Your task to perform on an android device: What's the latest video from Game Informer? Image 0: 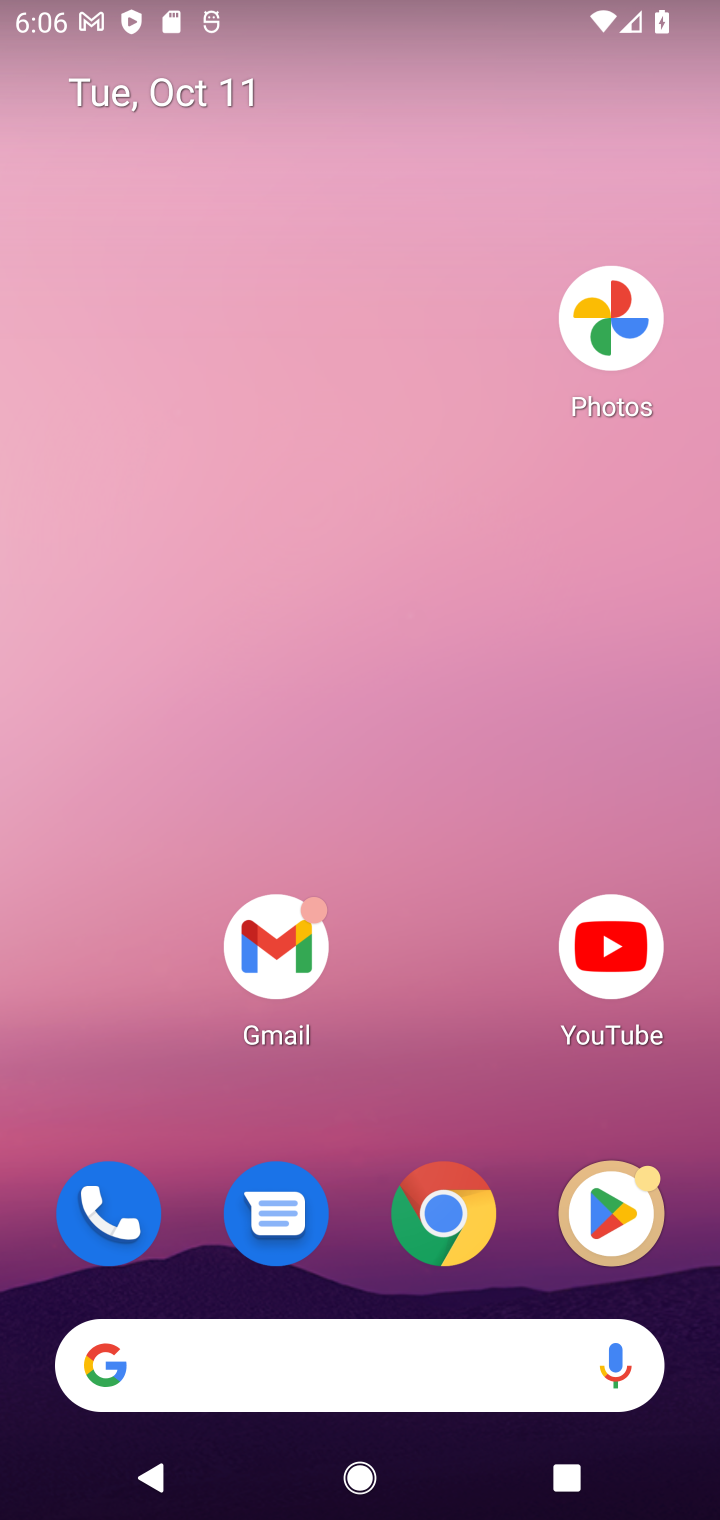
Step 0: drag from (377, 1297) to (507, 53)
Your task to perform on an android device: What's the latest video from Game Informer? Image 1: 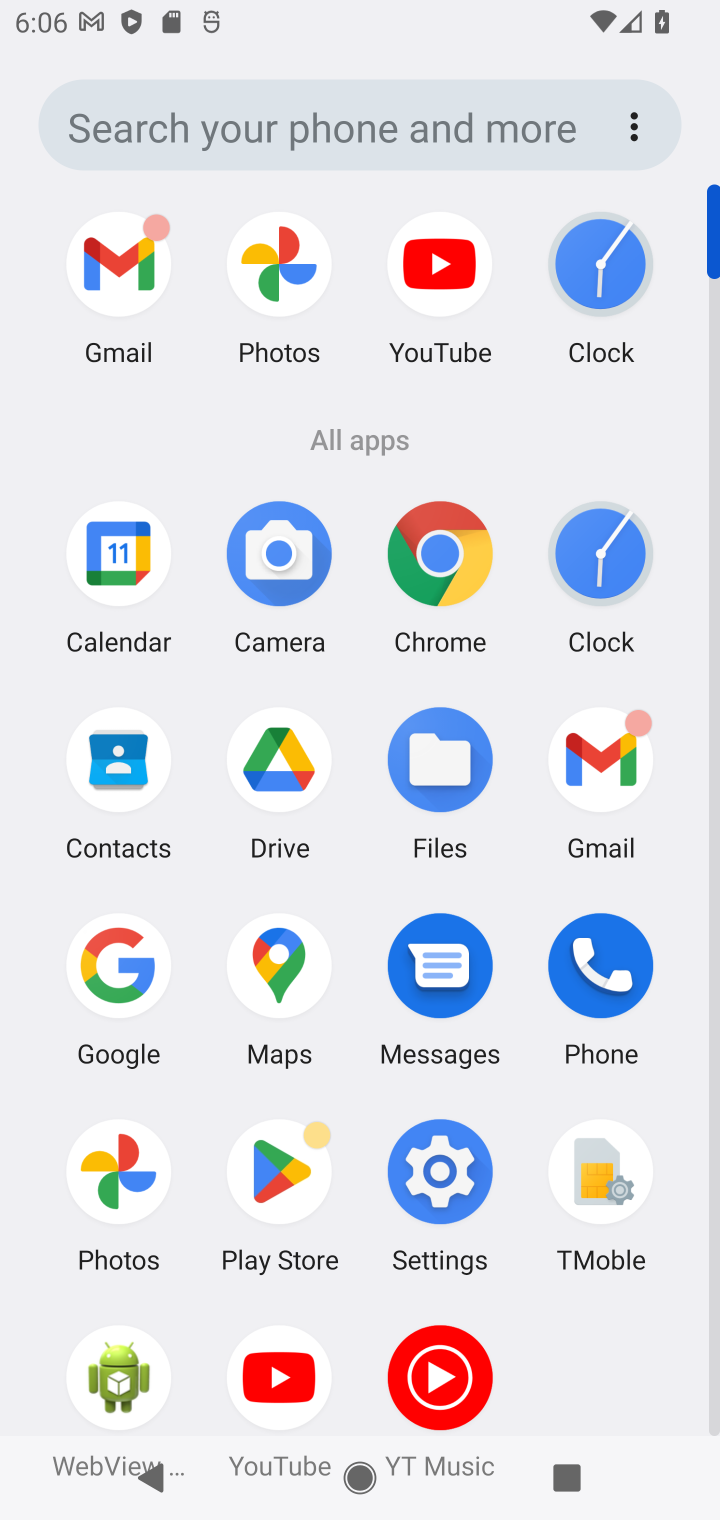
Step 1: click (445, 588)
Your task to perform on an android device: What's the latest video from Game Informer? Image 2: 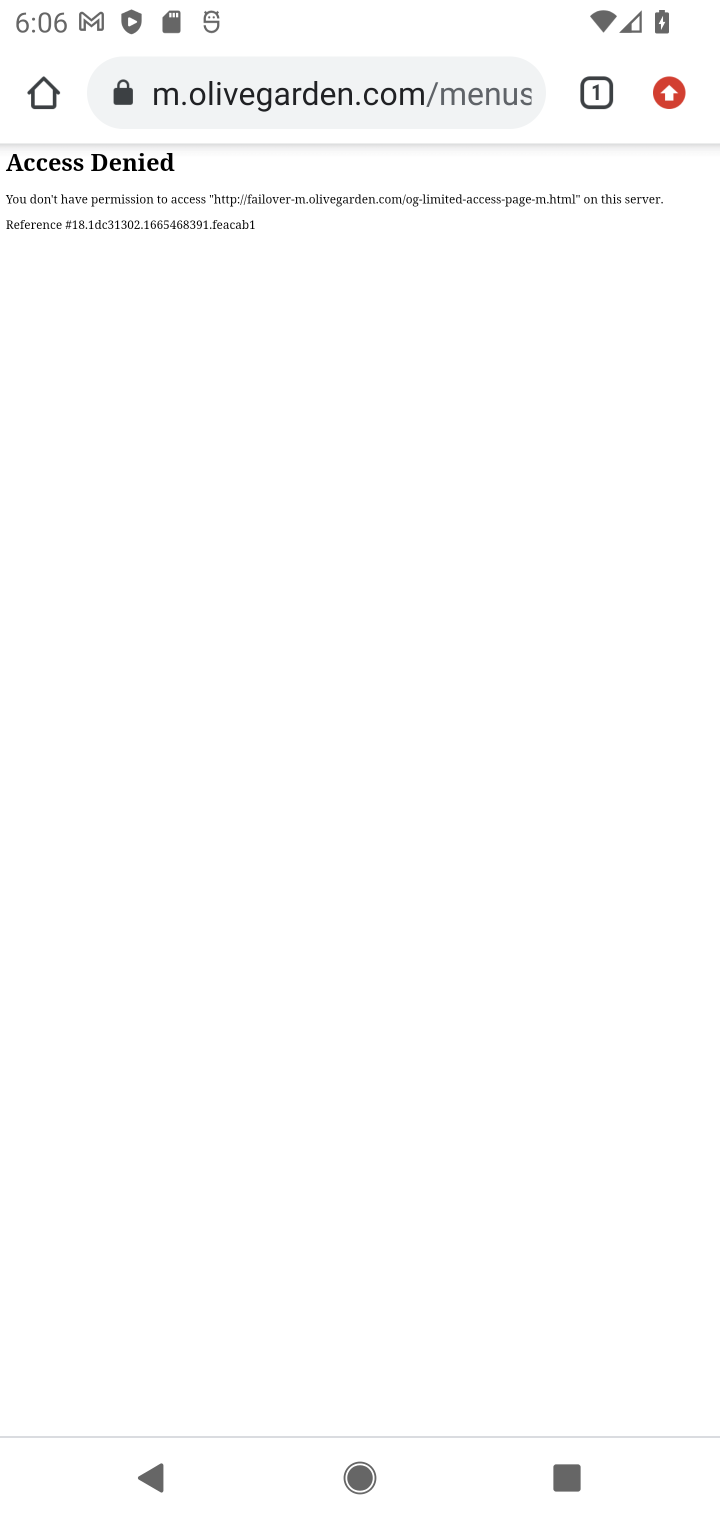
Step 2: click (297, 105)
Your task to perform on an android device: What's the latest video from Game Informer? Image 3: 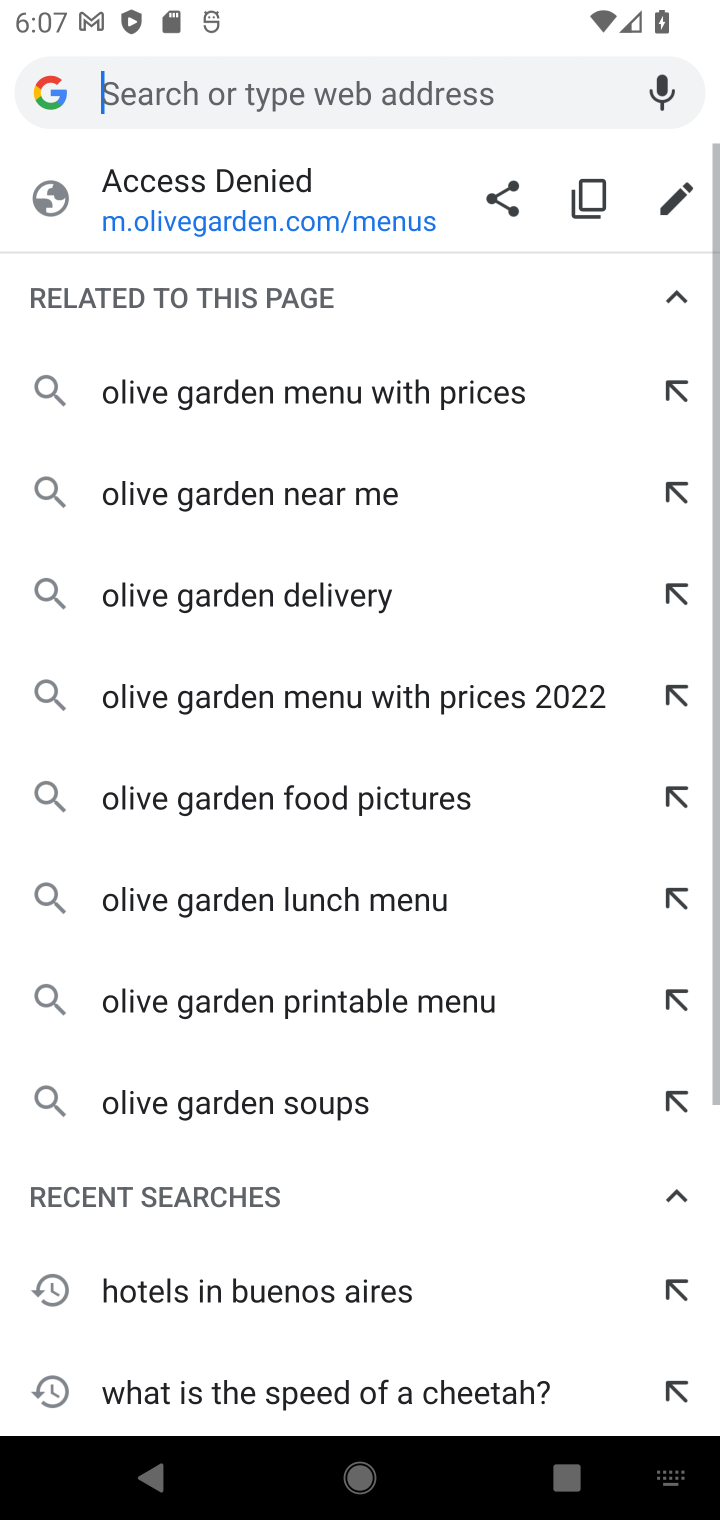
Step 3: type "What's the latest video from Game Informer?"
Your task to perform on an android device: What's the latest video from Game Informer? Image 4: 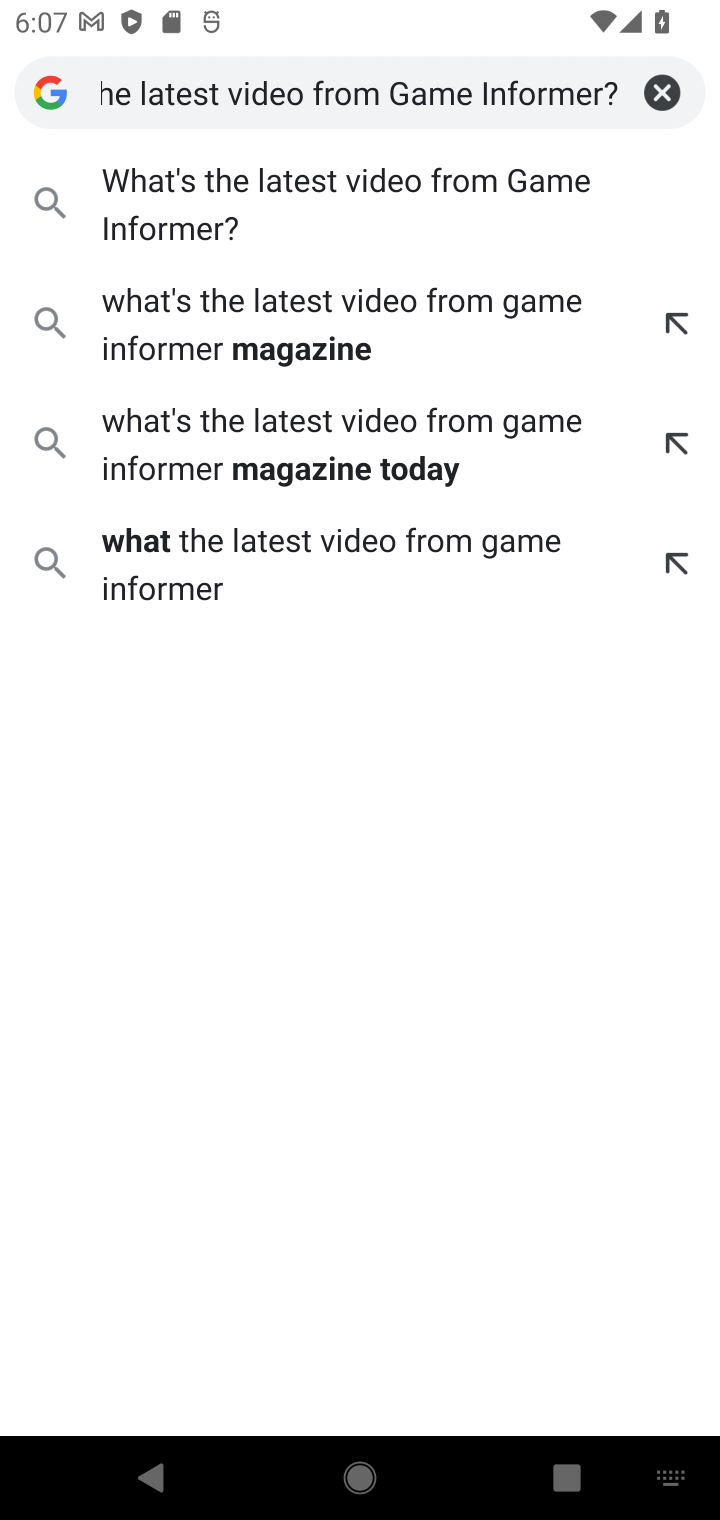
Step 4: click (341, 188)
Your task to perform on an android device: What's the latest video from Game Informer? Image 5: 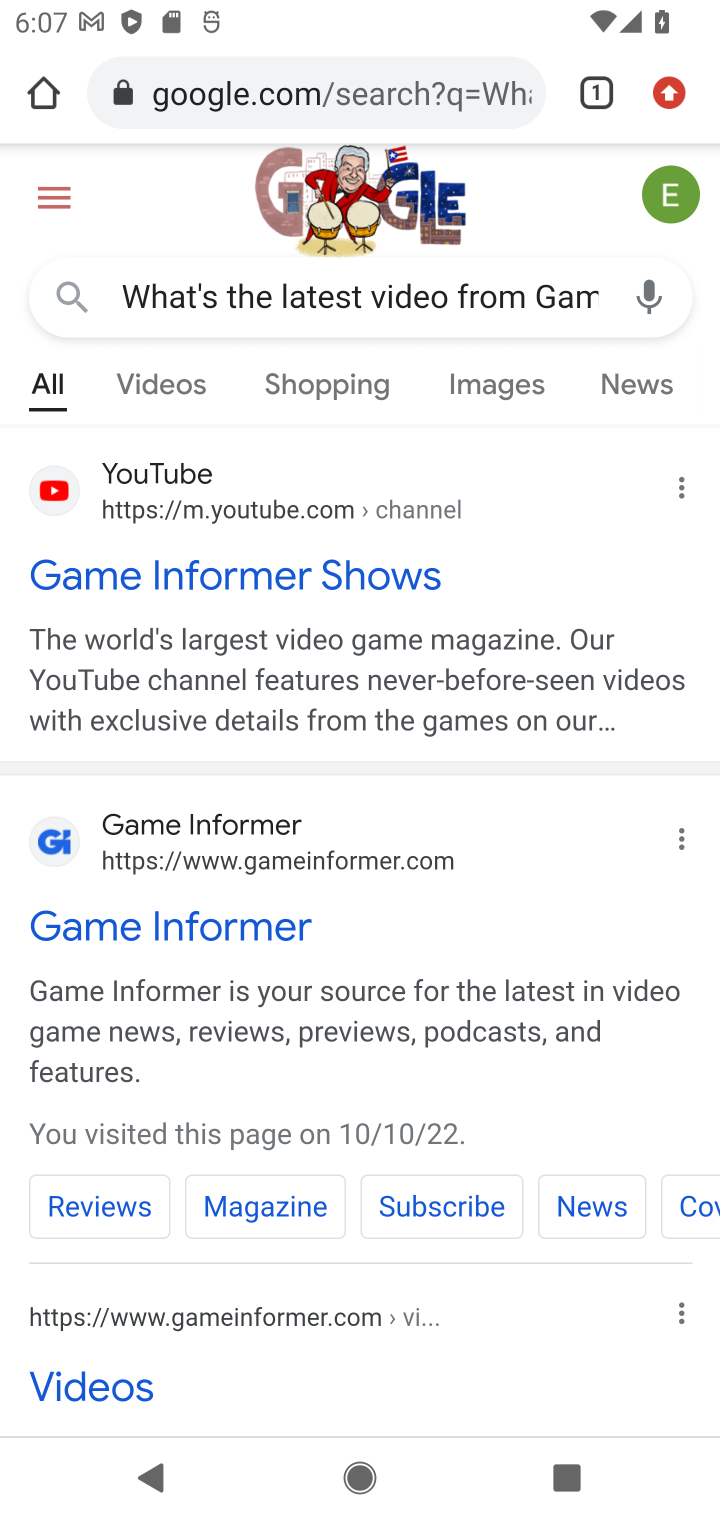
Step 5: click (186, 580)
Your task to perform on an android device: What's the latest video from Game Informer? Image 6: 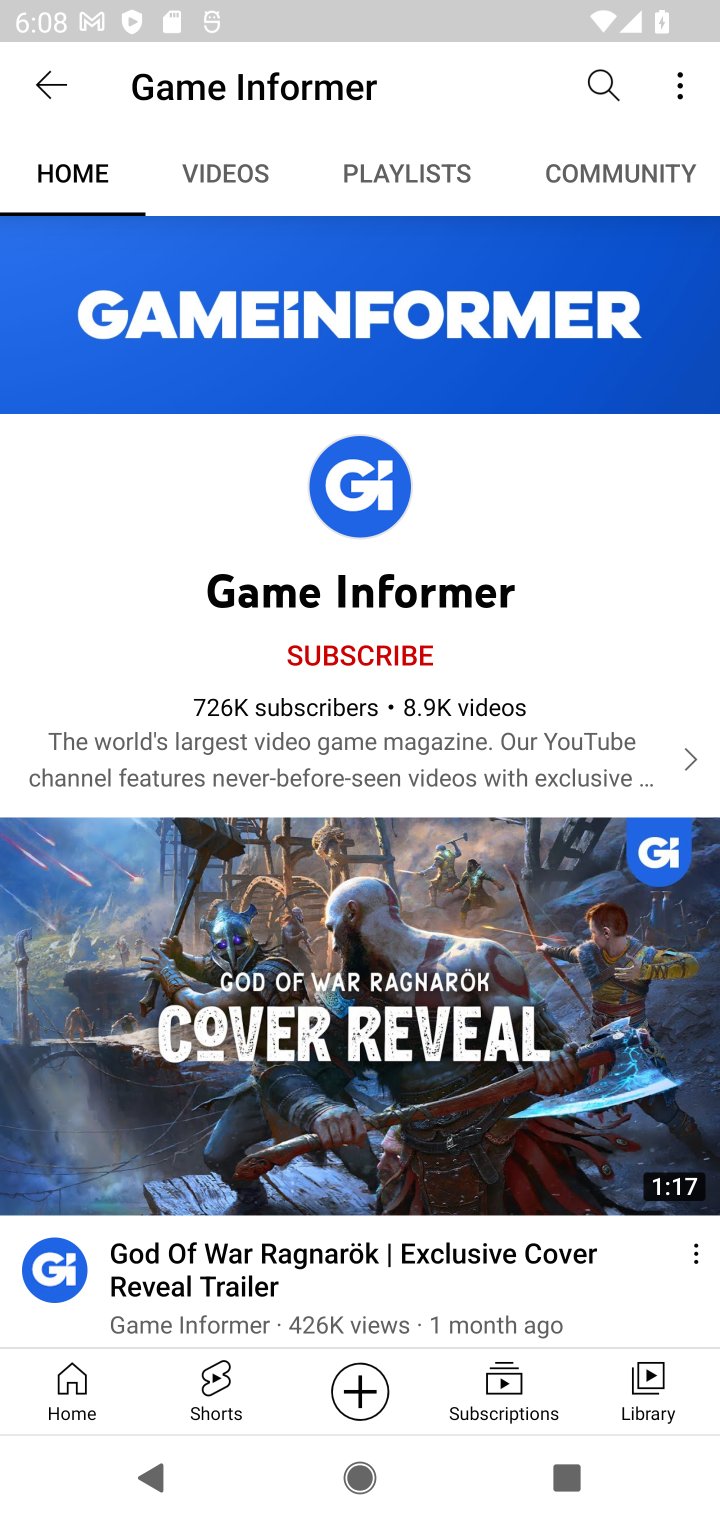
Step 6: click (227, 180)
Your task to perform on an android device: What's the latest video from Game Informer? Image 7: 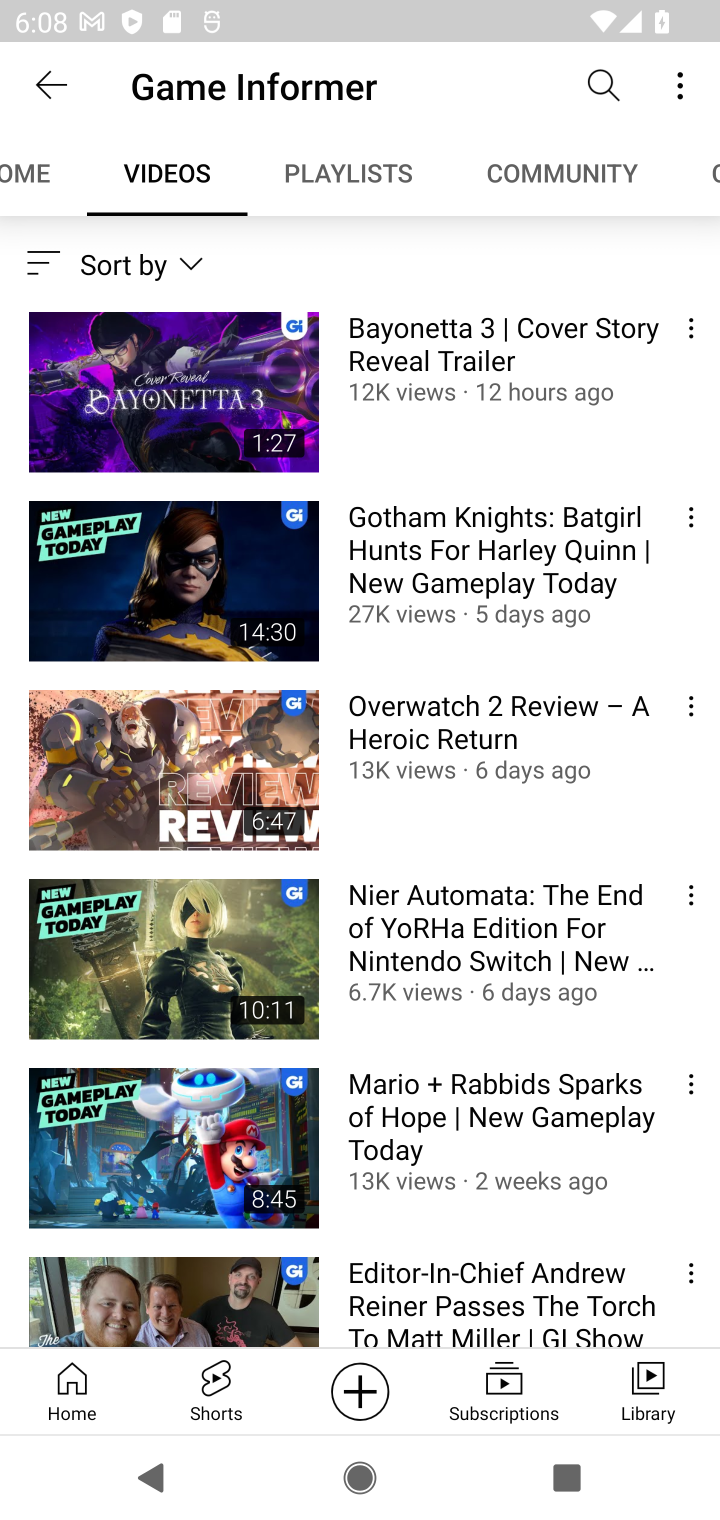
Step 7: click (458, 359)
Your task to perform on an android device: What's the latest video from Game Informer? Image 8: 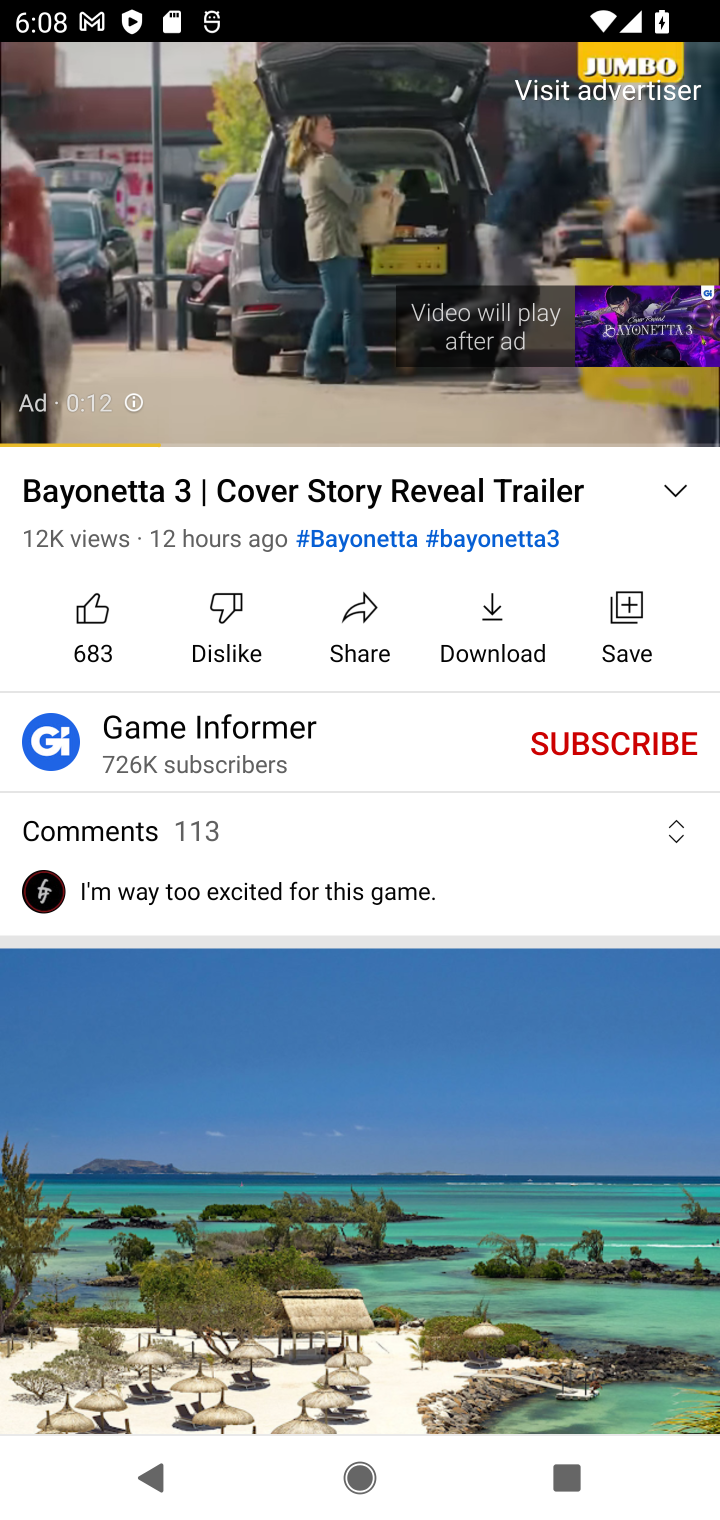
Step 8: drag from (378, 962) to (360, 337)
Your task to perform on an android device: What's the latest video from Game Informer? Image 9: 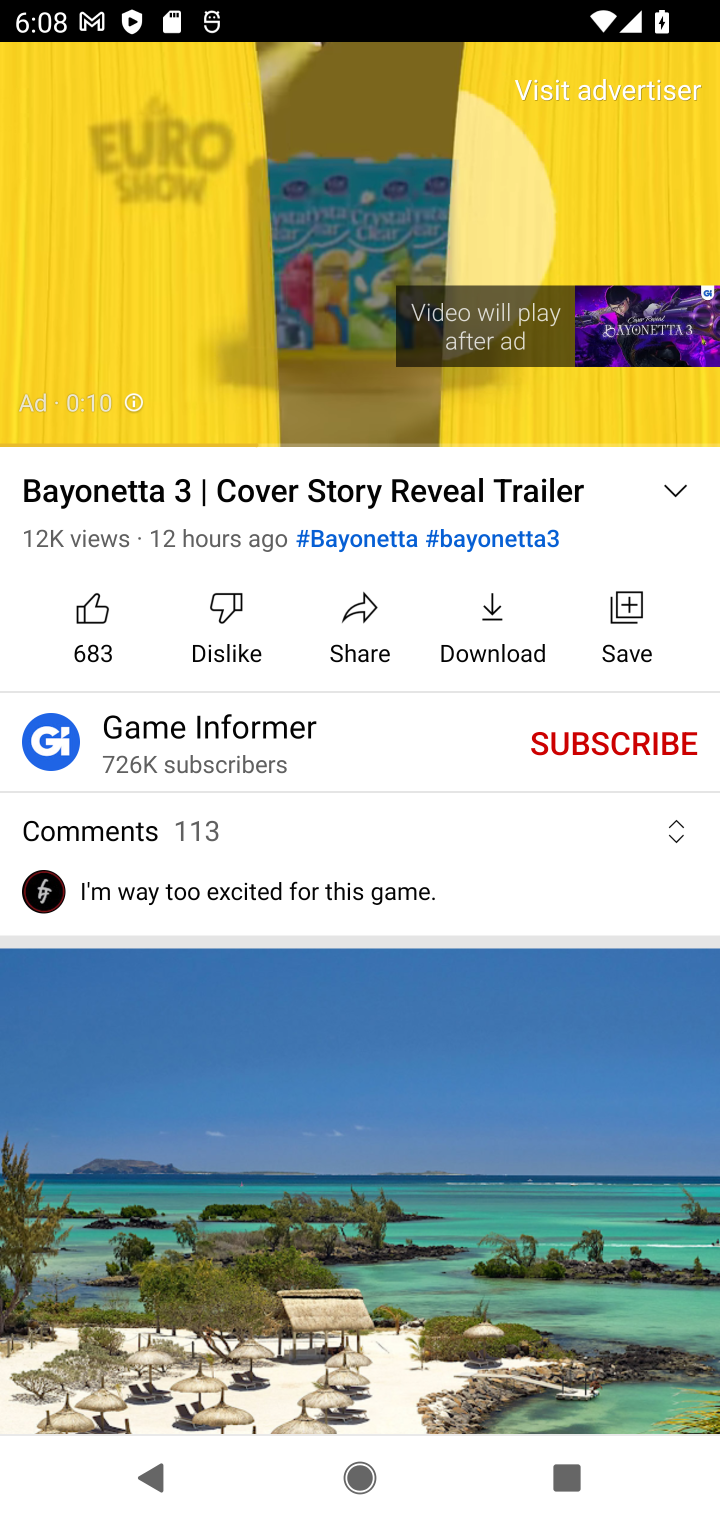
Step 9: drag from (271, 903) to (322, 339)
Your task to perform on an android device: What's the latest video from Game Informer? Image 10: 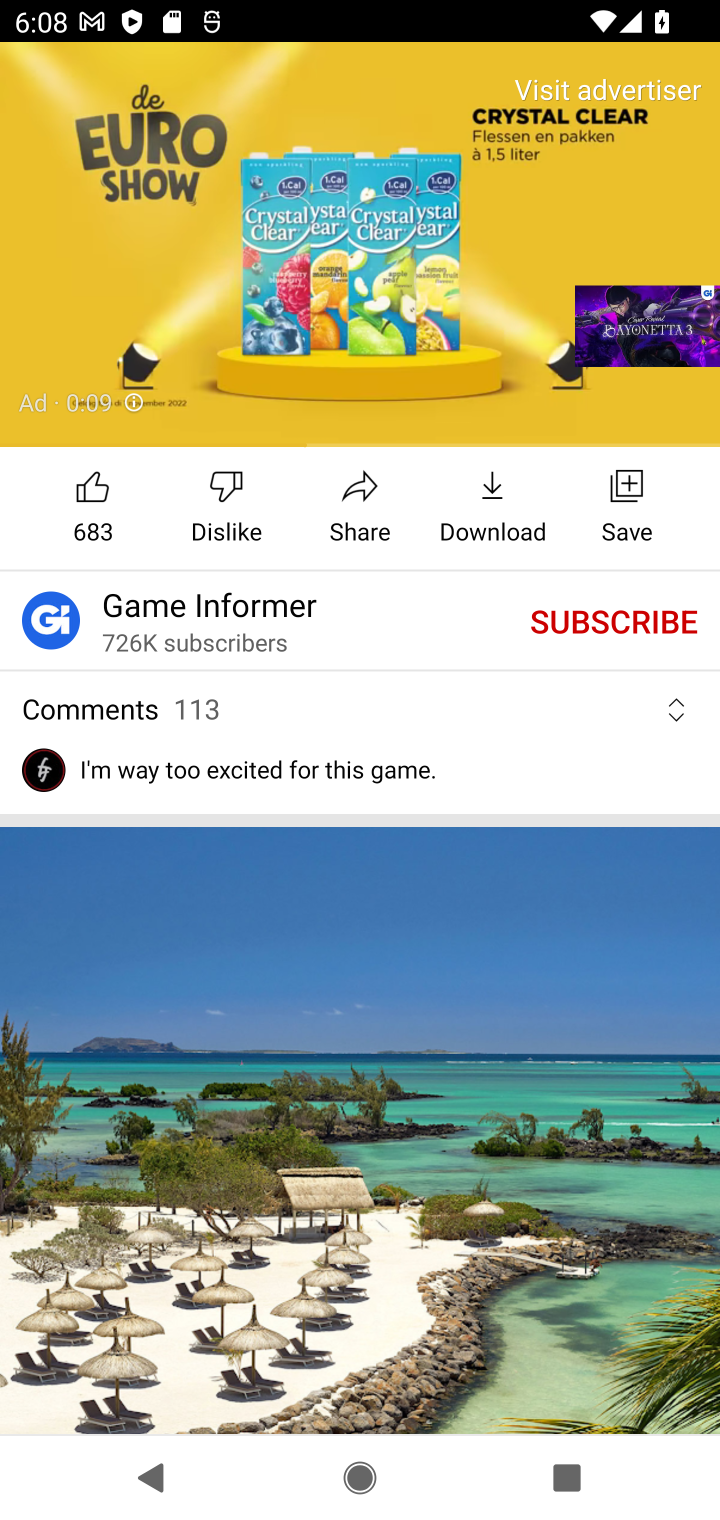
Step 10: drag from (375, 388) to (479, 252)
Your task to perform on an android device: What's the latest video from Game Informer? Image 11: 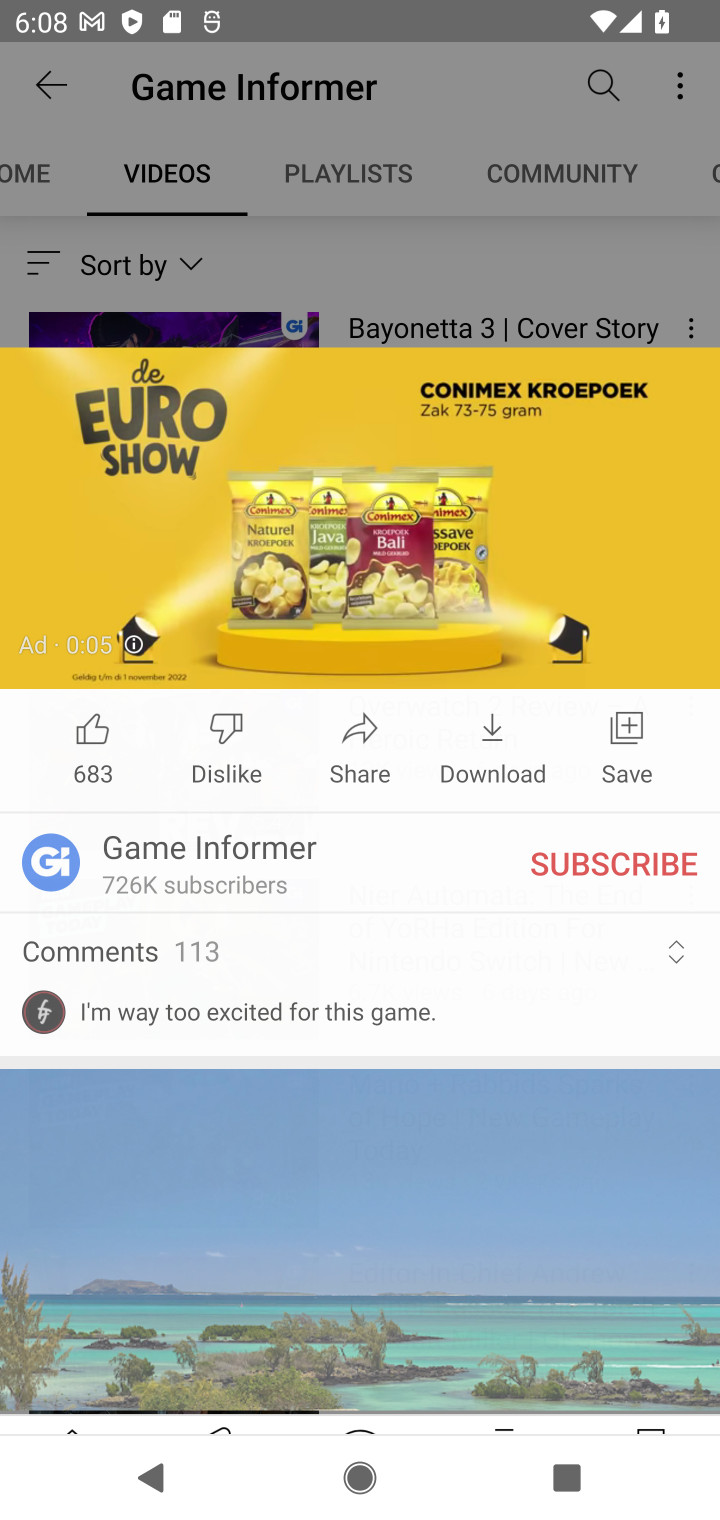
Step 11: drag from (400, 711) to (402, 1254)
Your task to perform on an android device: What's the latest video from Game Informer? Image 12: 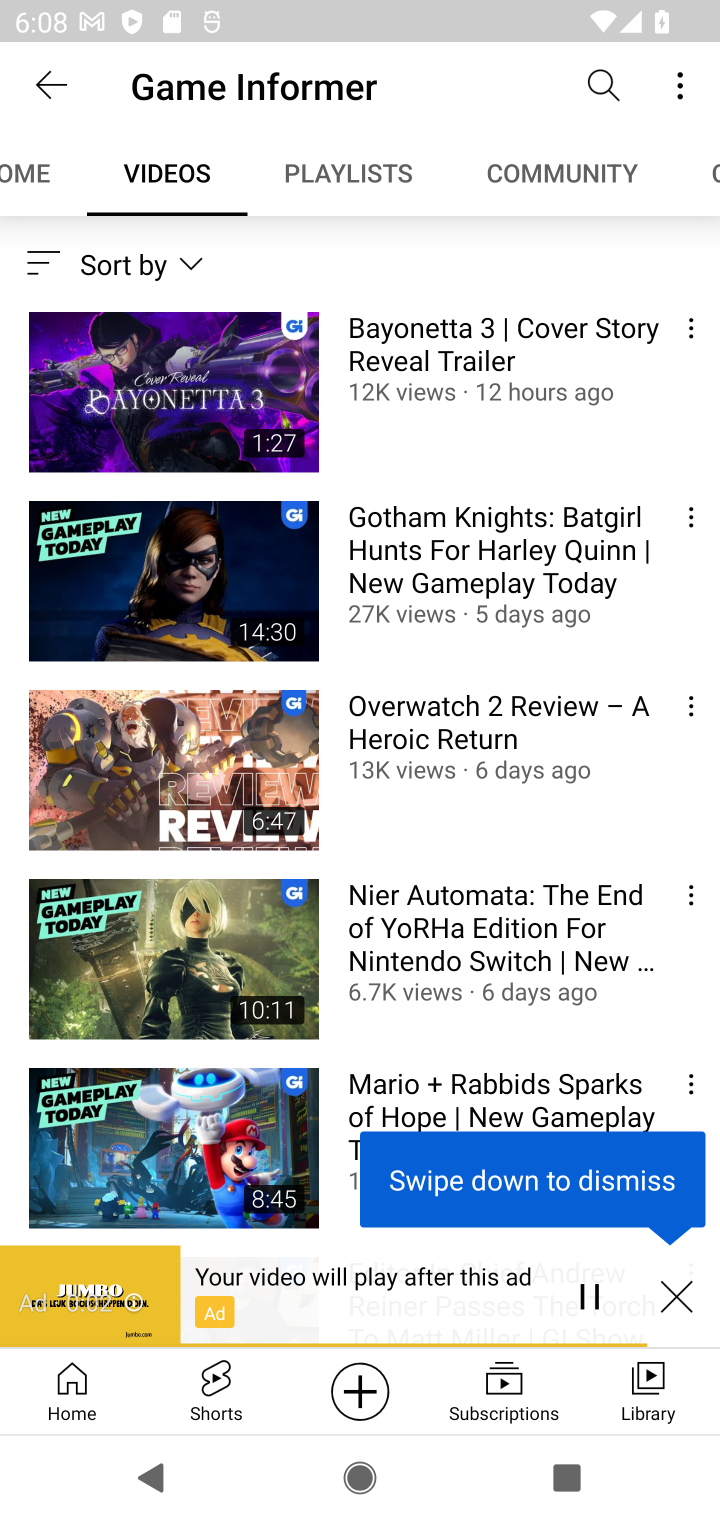
Step 12: click (659, 1294)
Your task to perform on an android device: What's the latest video from Game Informer? Image 13: 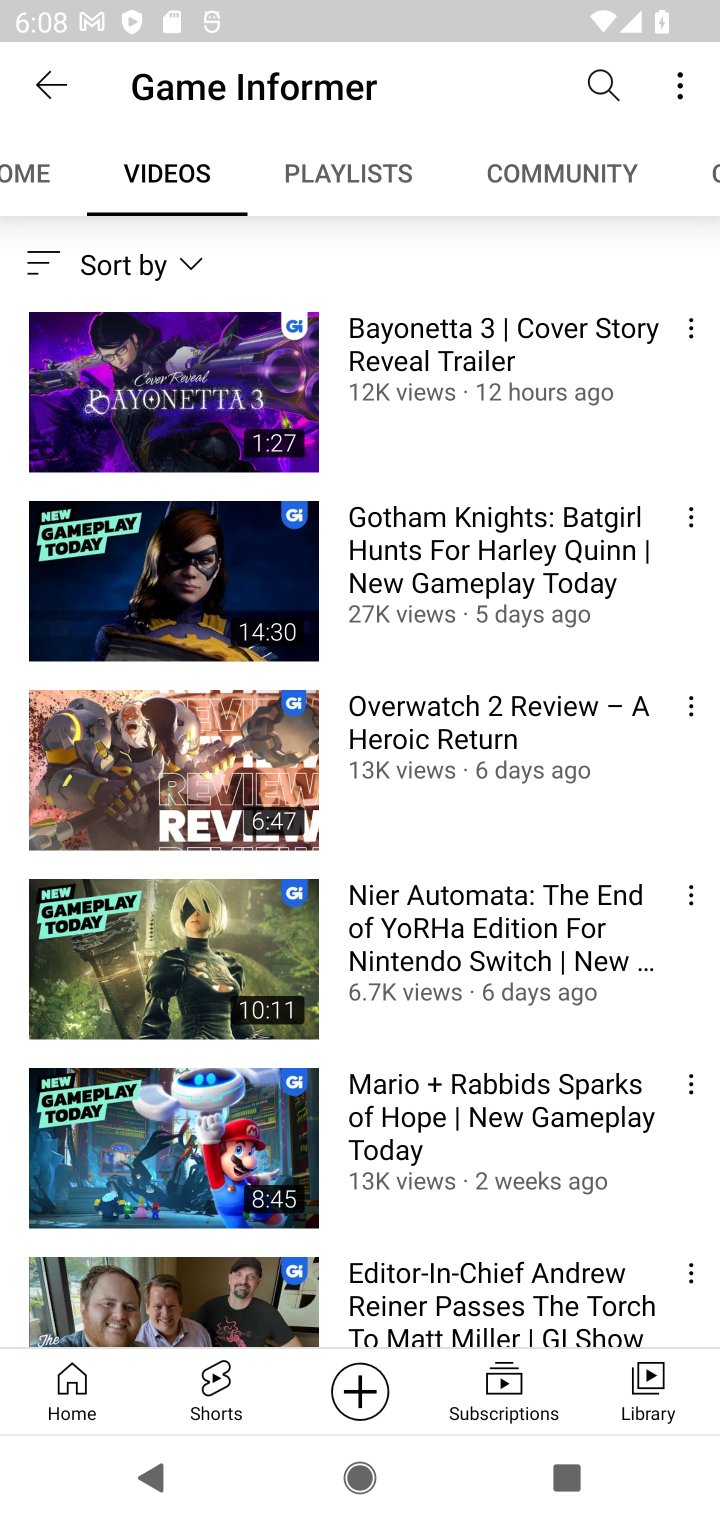
Step 13: click (520, 416)
Your task to perform on an android device: What's the latest video from Game Informer? Image 14: 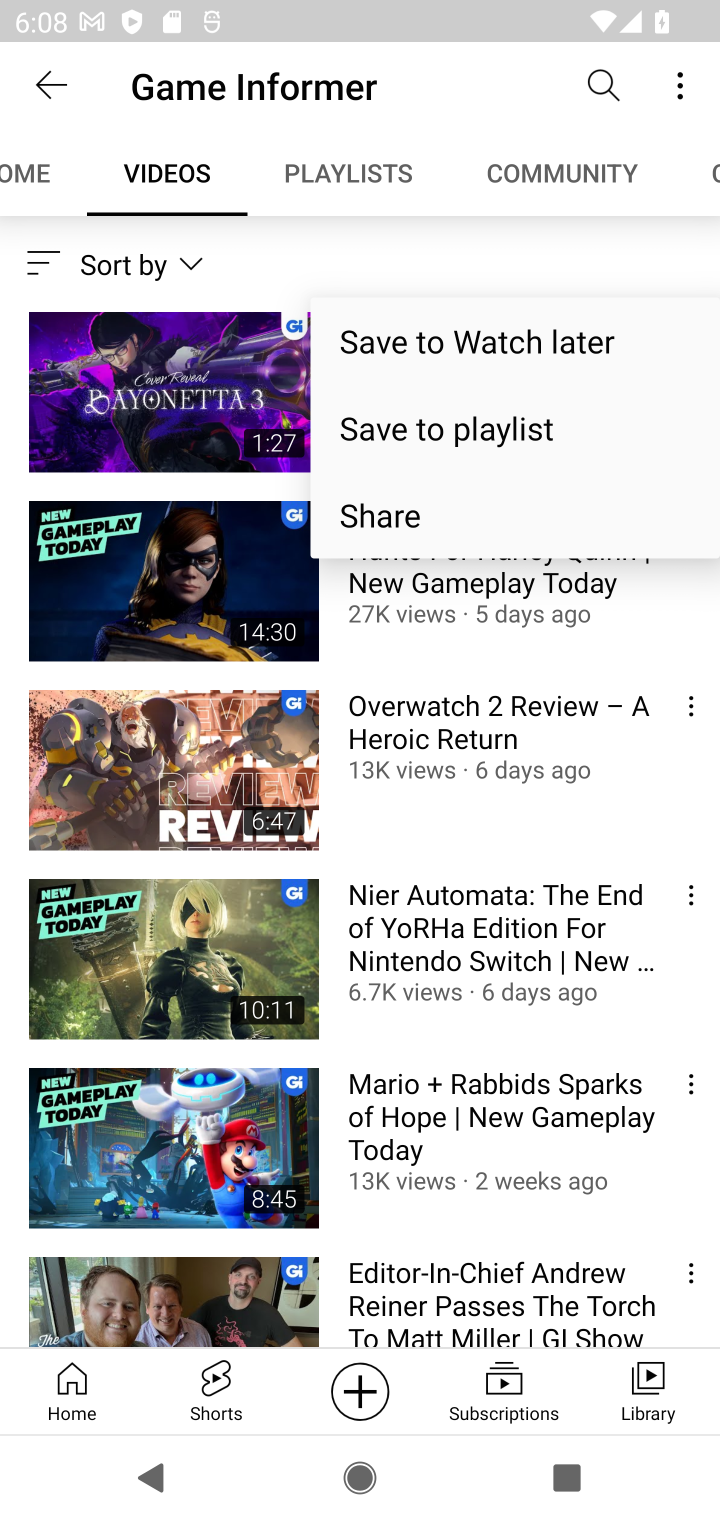
Step 14: click (277, 382)
Your task to perform on an android device: What's the latest video from Game Informer? Image 15: 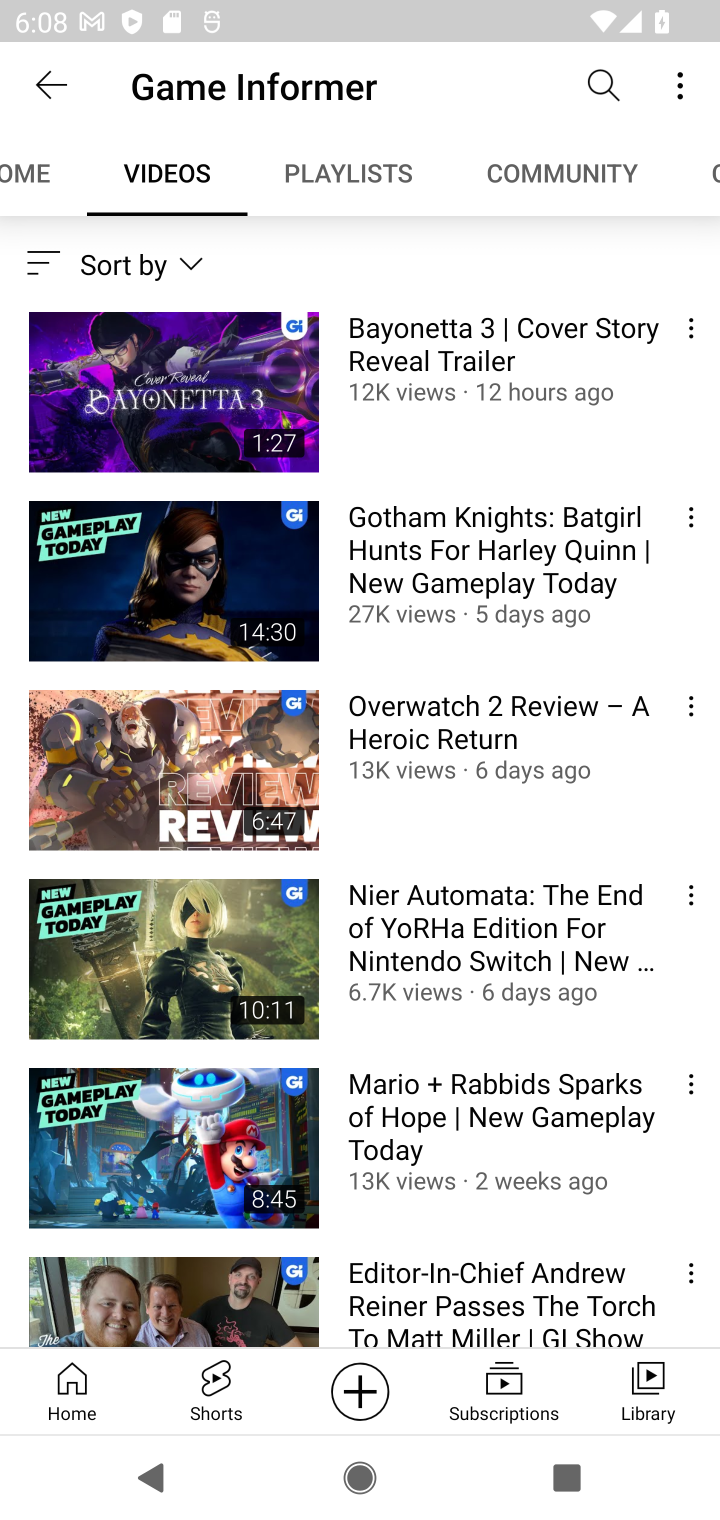
Step 15: click (277, 382)
Your task to perform on an android device: What's the latest video from Game Informer? Image 16: 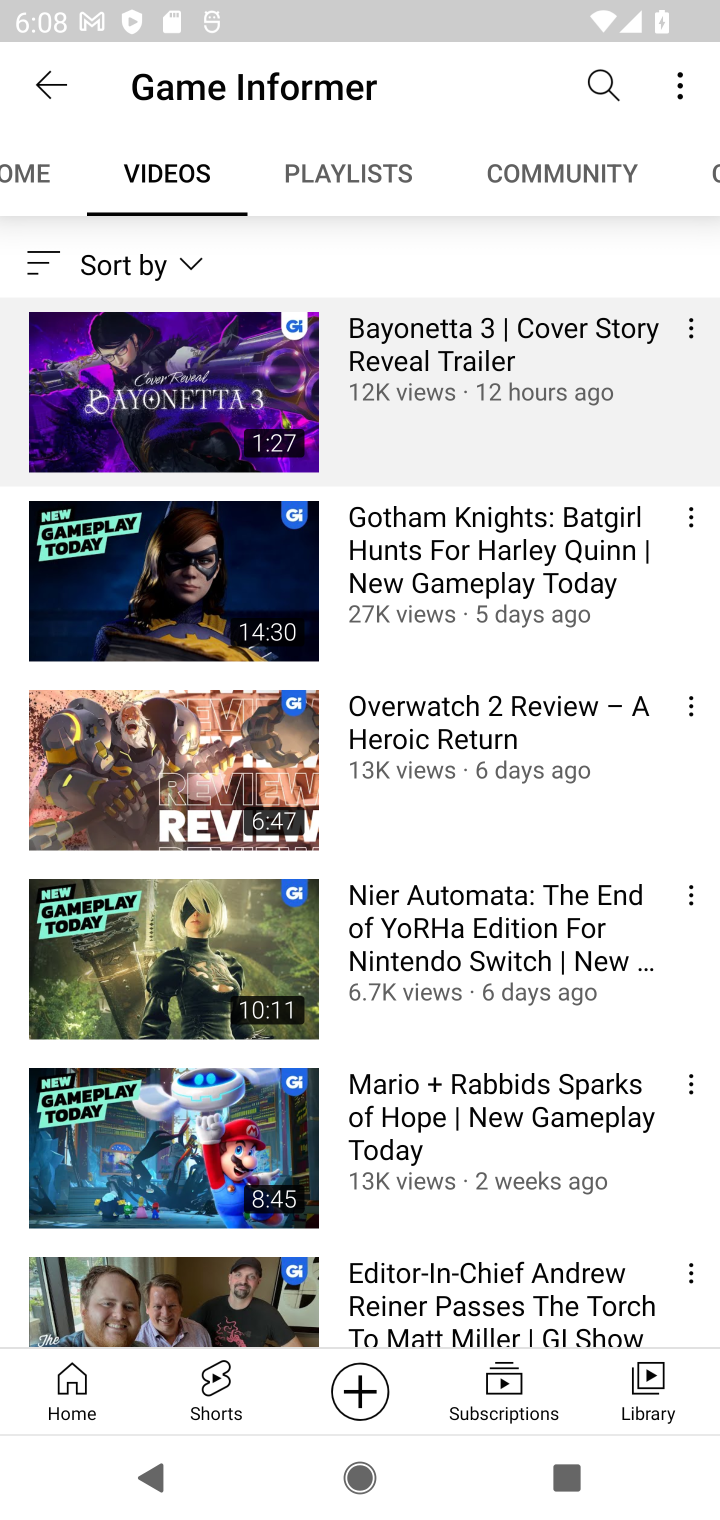
Step 16: click (376, 323)
Your task to perform on an android device: What's the latest video from Game Informer? Image 17: 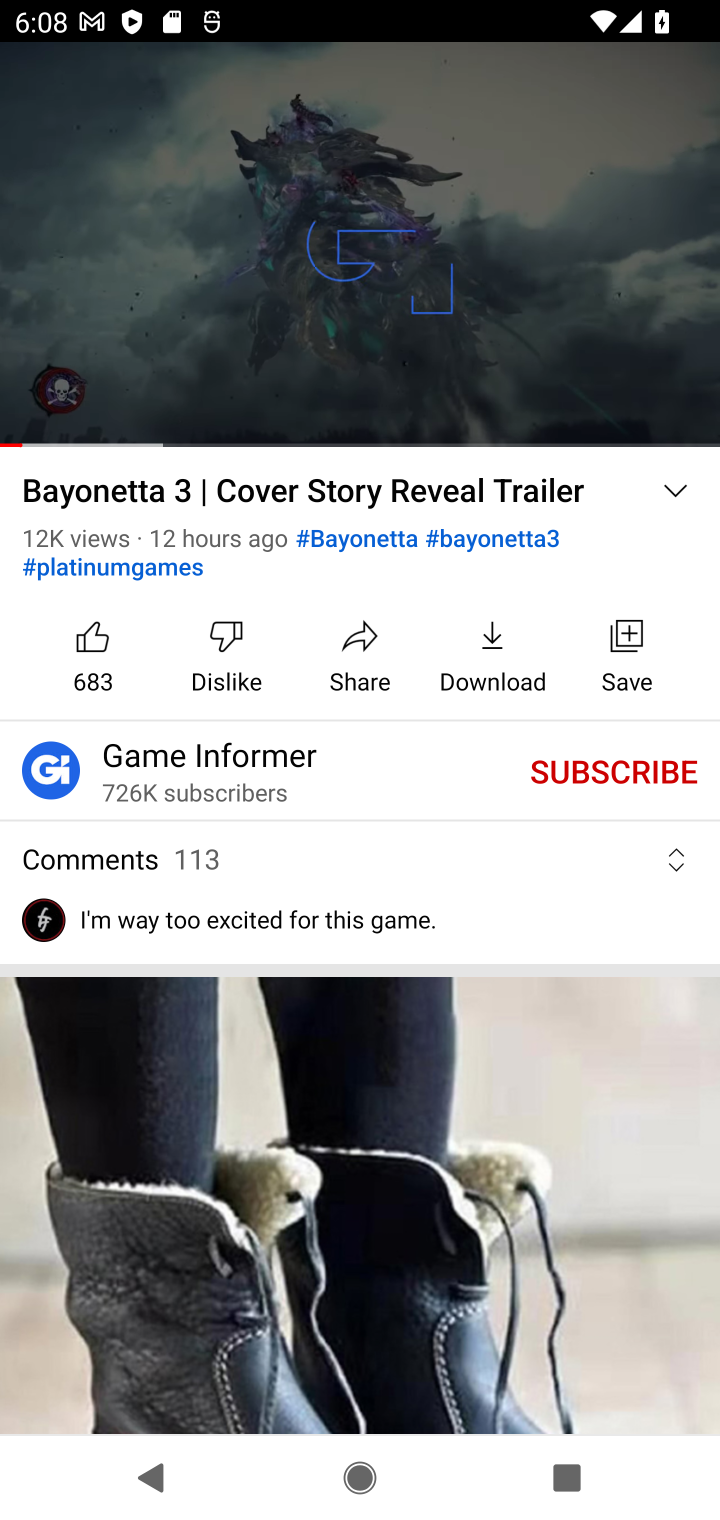
Step 17: drag from (395, 1082) to (277, 252)
Your task to perform on an android device: What's the latest video from Game Informer? Image 18: 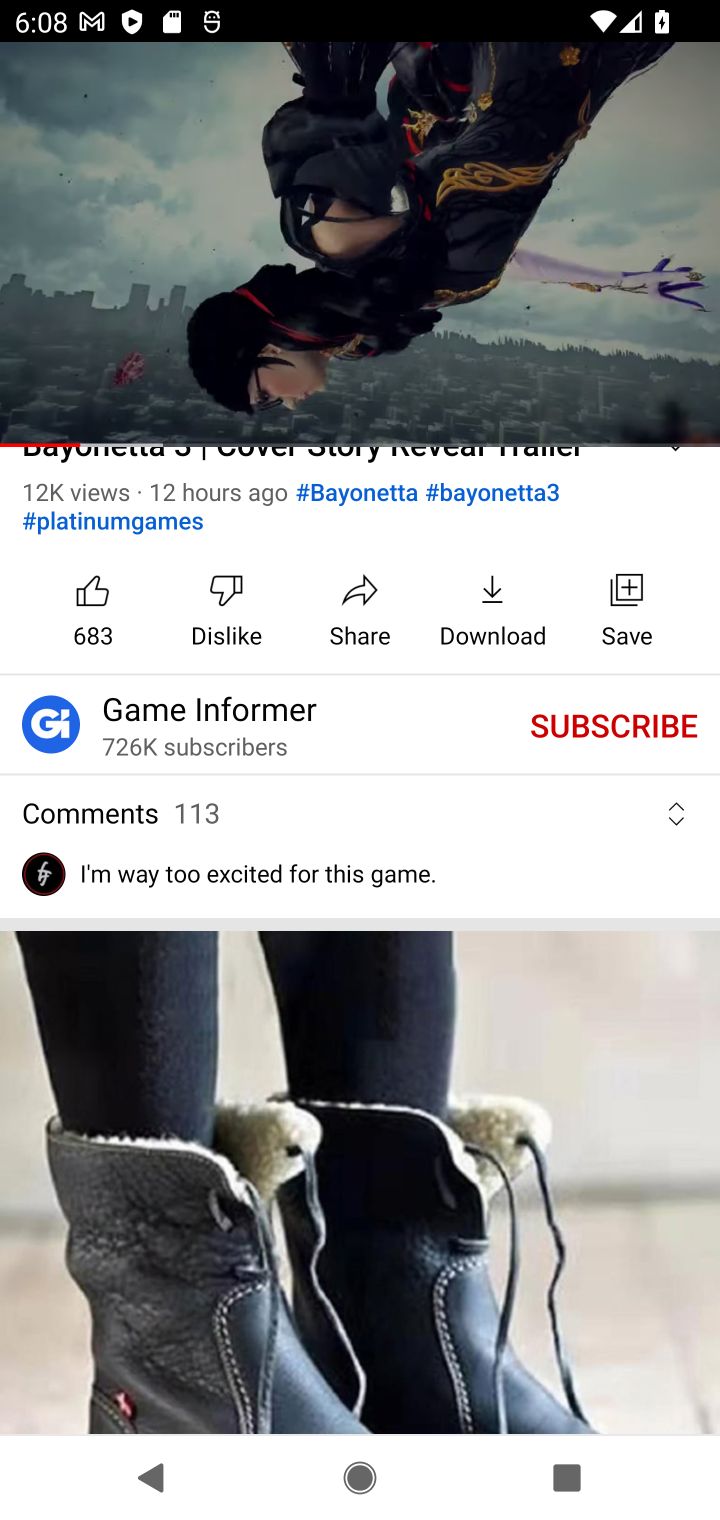
Step 18: drag from (309, 255) to (552, 285)
Your task to perform on an android device: What's the latest video from Game Informer? Image 19: 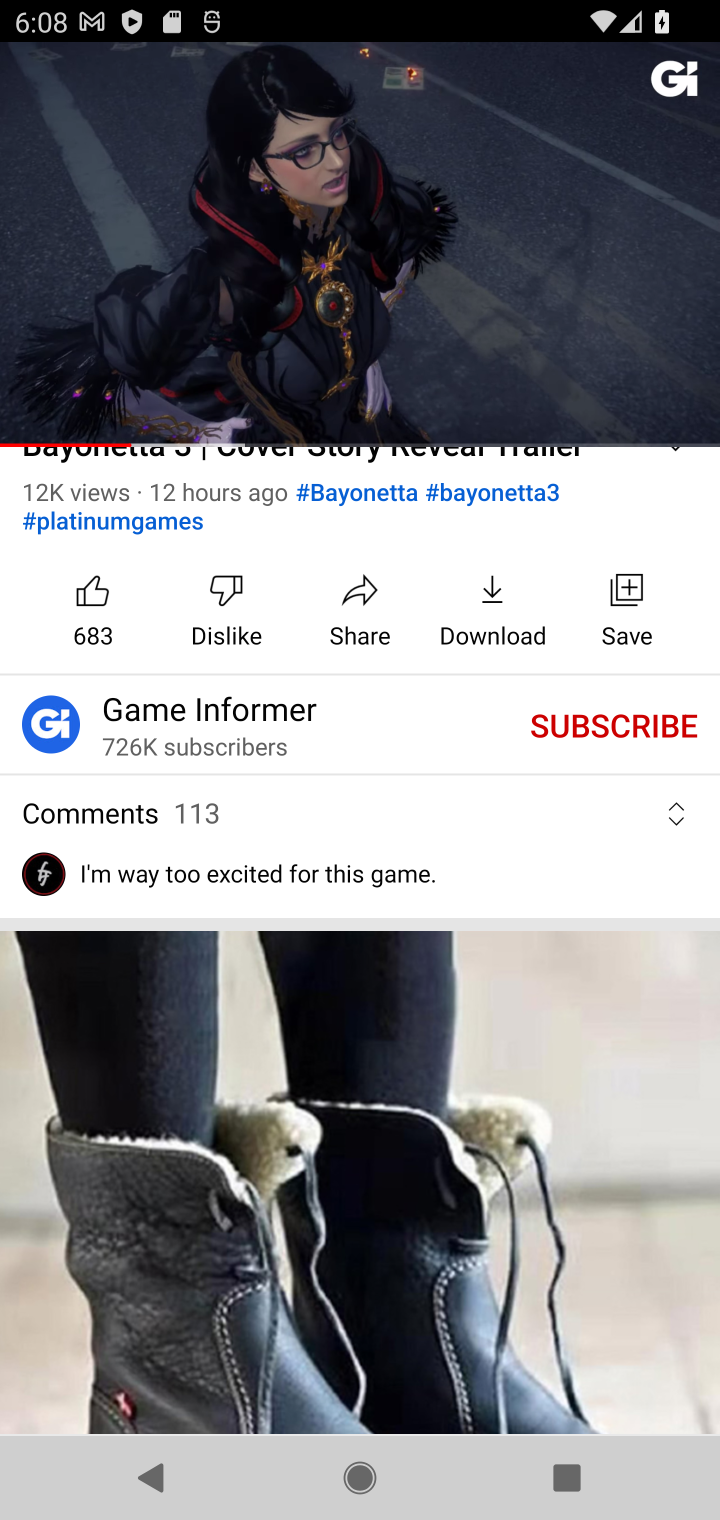
Step 19: click (604, 386)
Your task to perform on an android device: What's the latest video from Game Informer? Image 20: 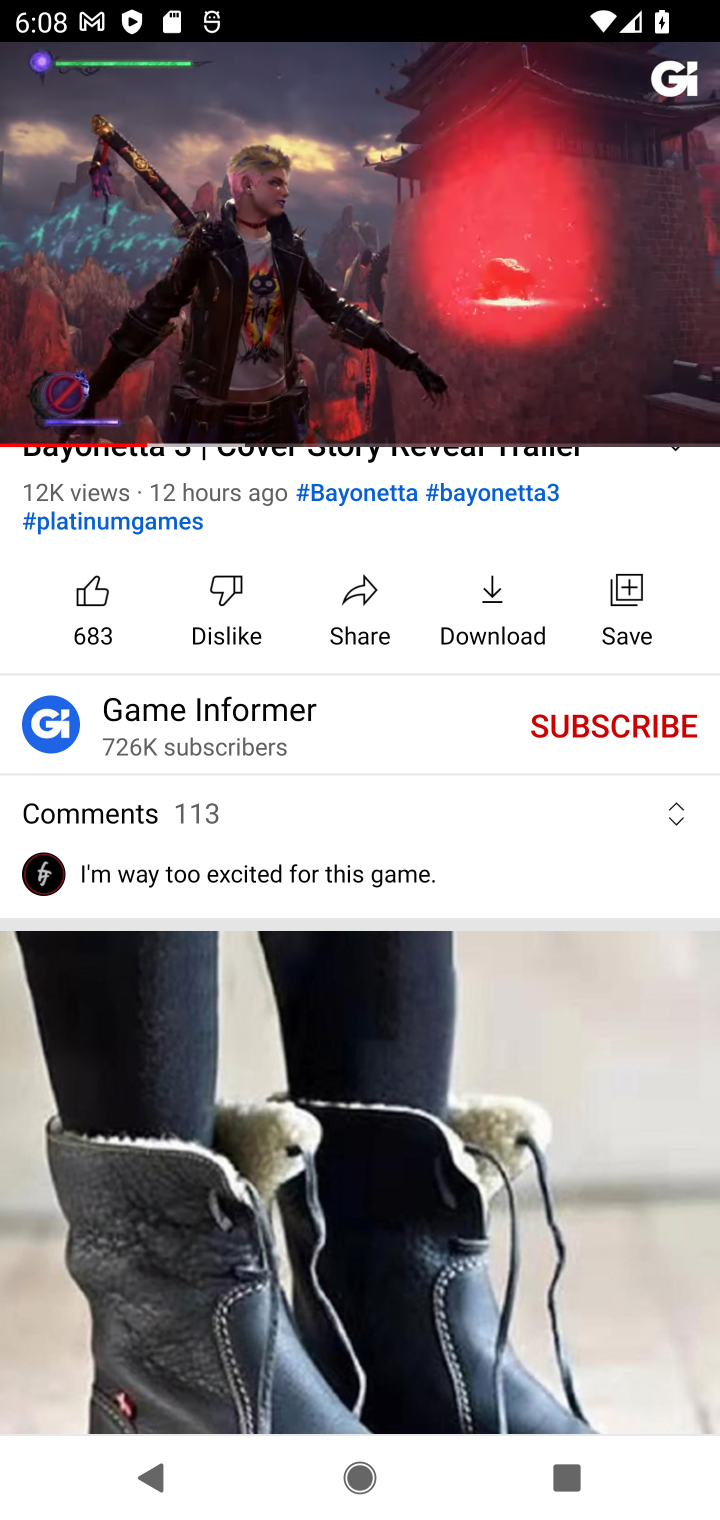
Step 20: drag from (444, 710) to (437, 953)
Your task to perform on an android device: What's the latest video from Game Informer? Image 21: 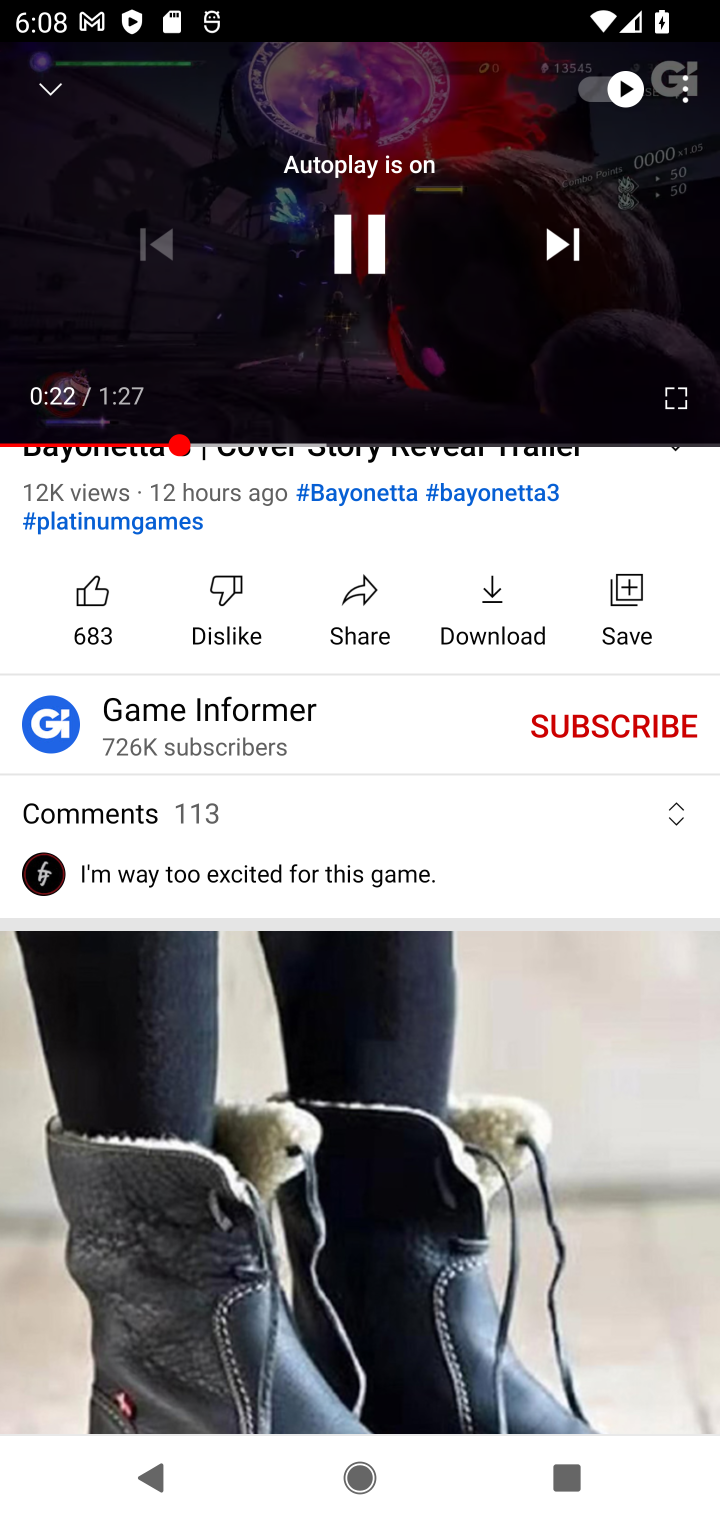
Step 21: drag from (354, 498) to (427, 306)
Your task to perform on an android device: What's the latest video from Game Informer? Image 22: 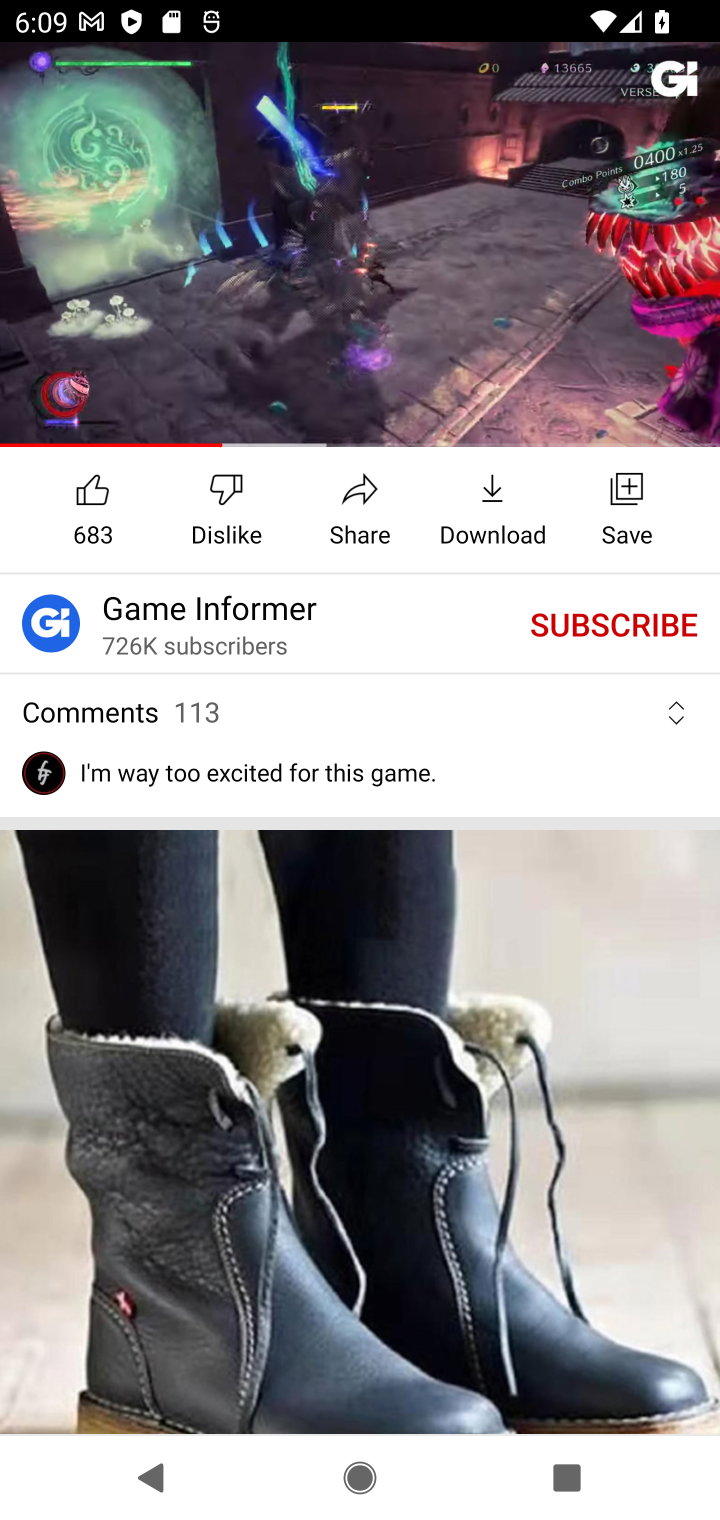
Step 22: drag from (402, 247) to (406, 1343)
Your task to perform on an android device: What's the latest video from Game Informer? Image 23: 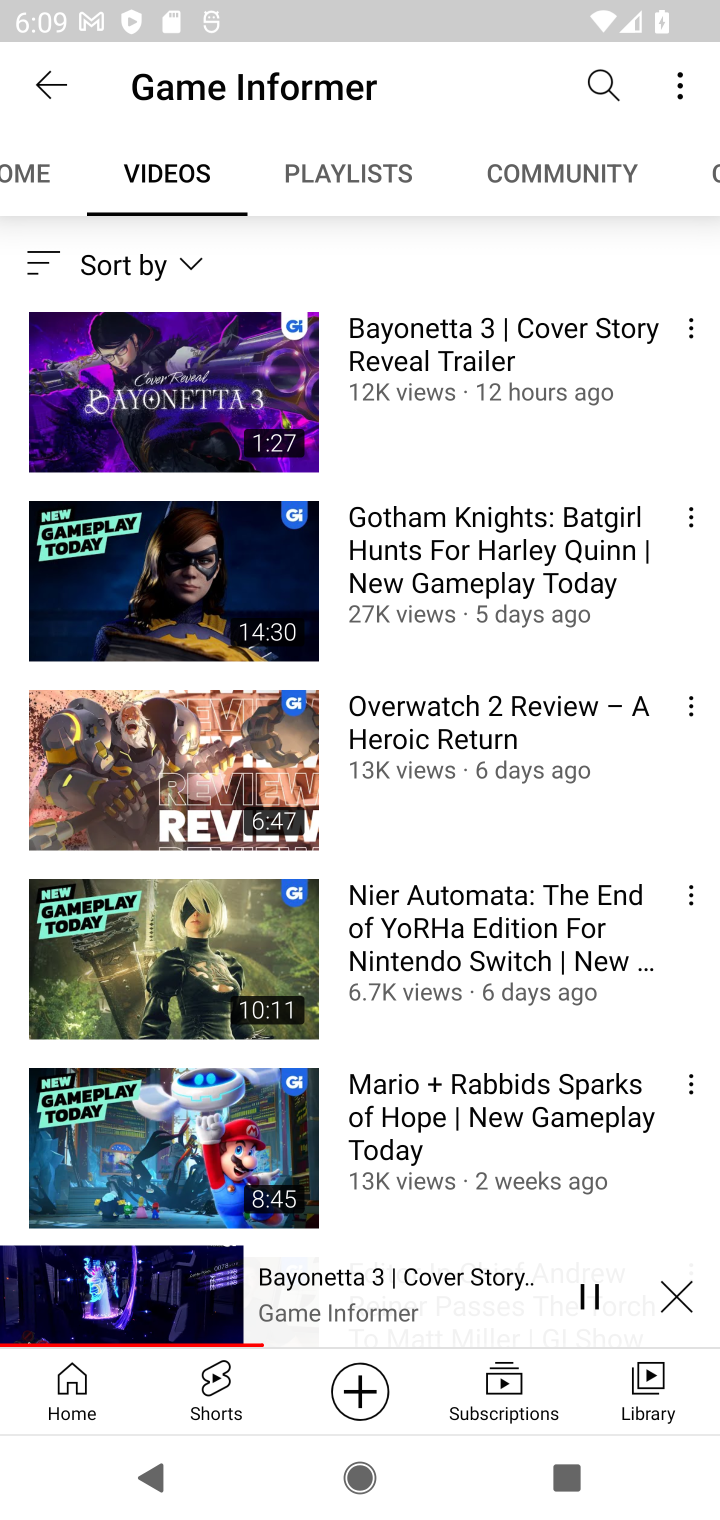
Step 23: click (675, 1308)
Your task to perform on an android device: What's the latest video from Game Informer? Image 24: 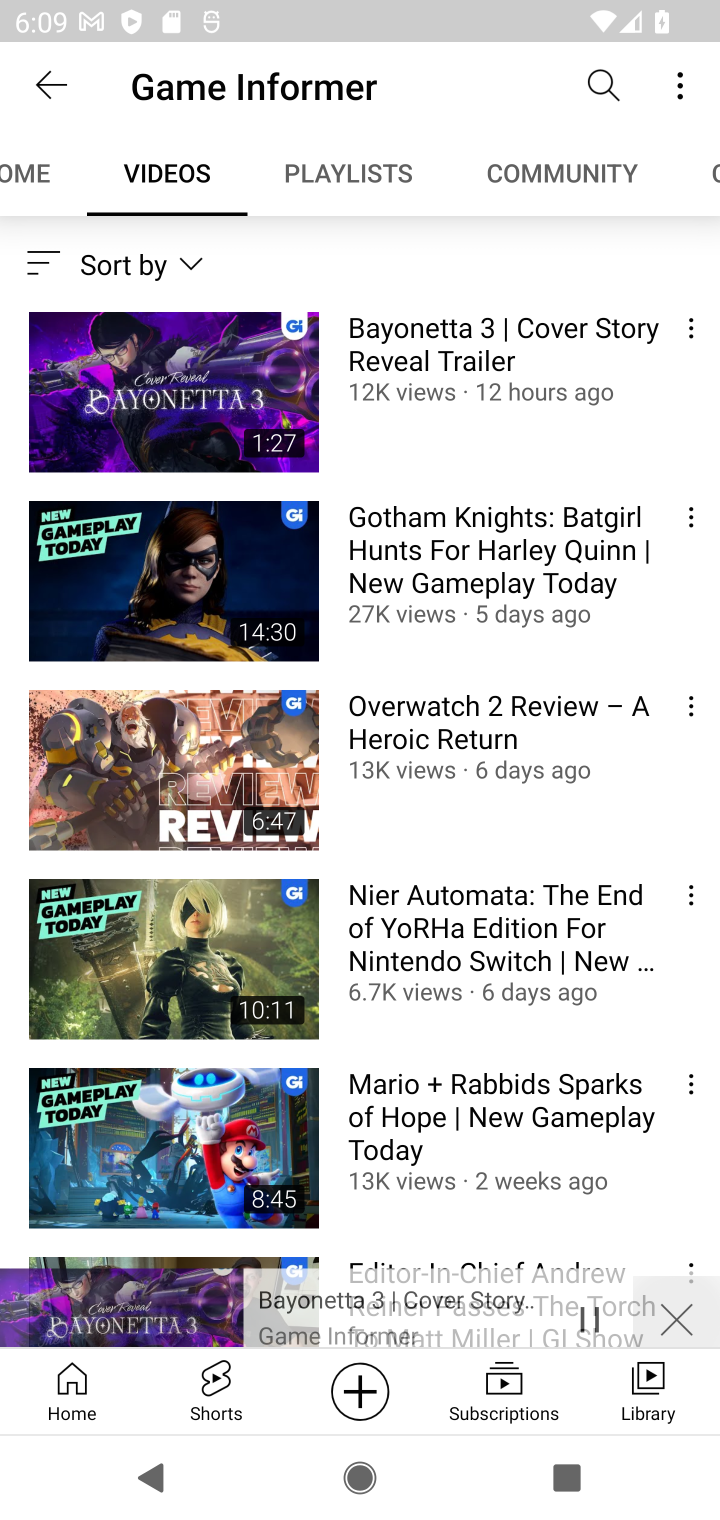
Step 24: click (392, 529)
Your task to perform on an android device: What's the latest video from Game Informer? Image 25: 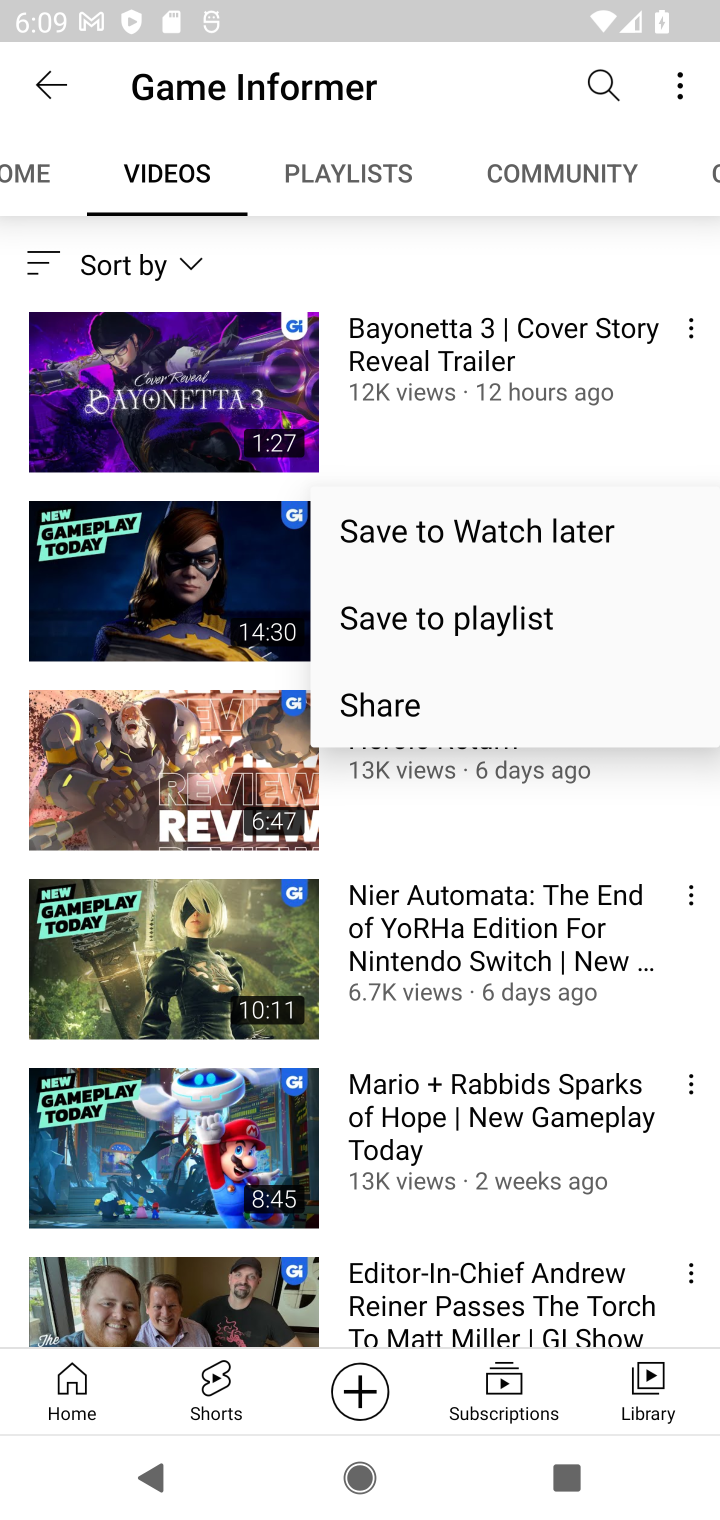
Step 25: click (19, 170)
Your task to perform on an android device: What's the latest video from Game Informer? Image 26: 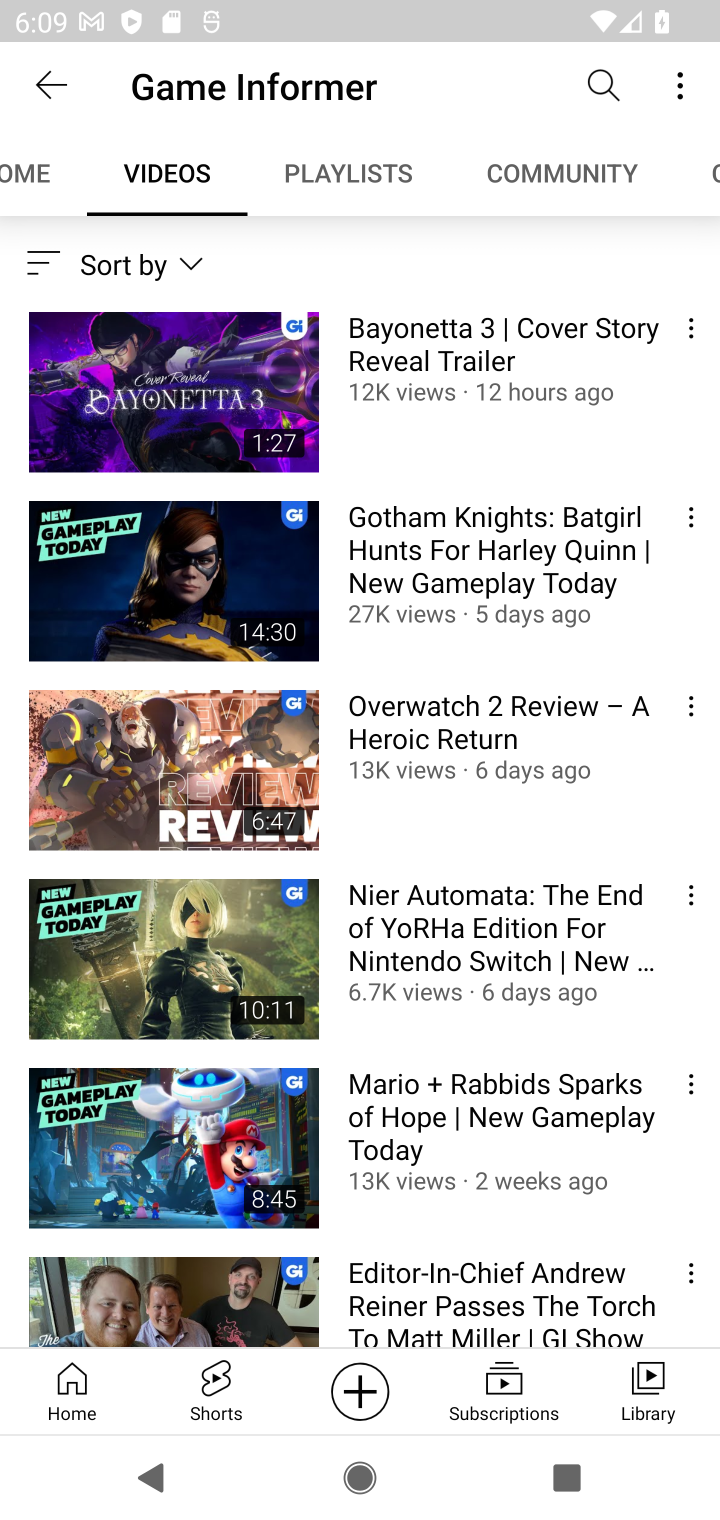
Step 26: click (318, 188)
Your task to perform on an android device: What's the latest video from Game Informer? Image 27: 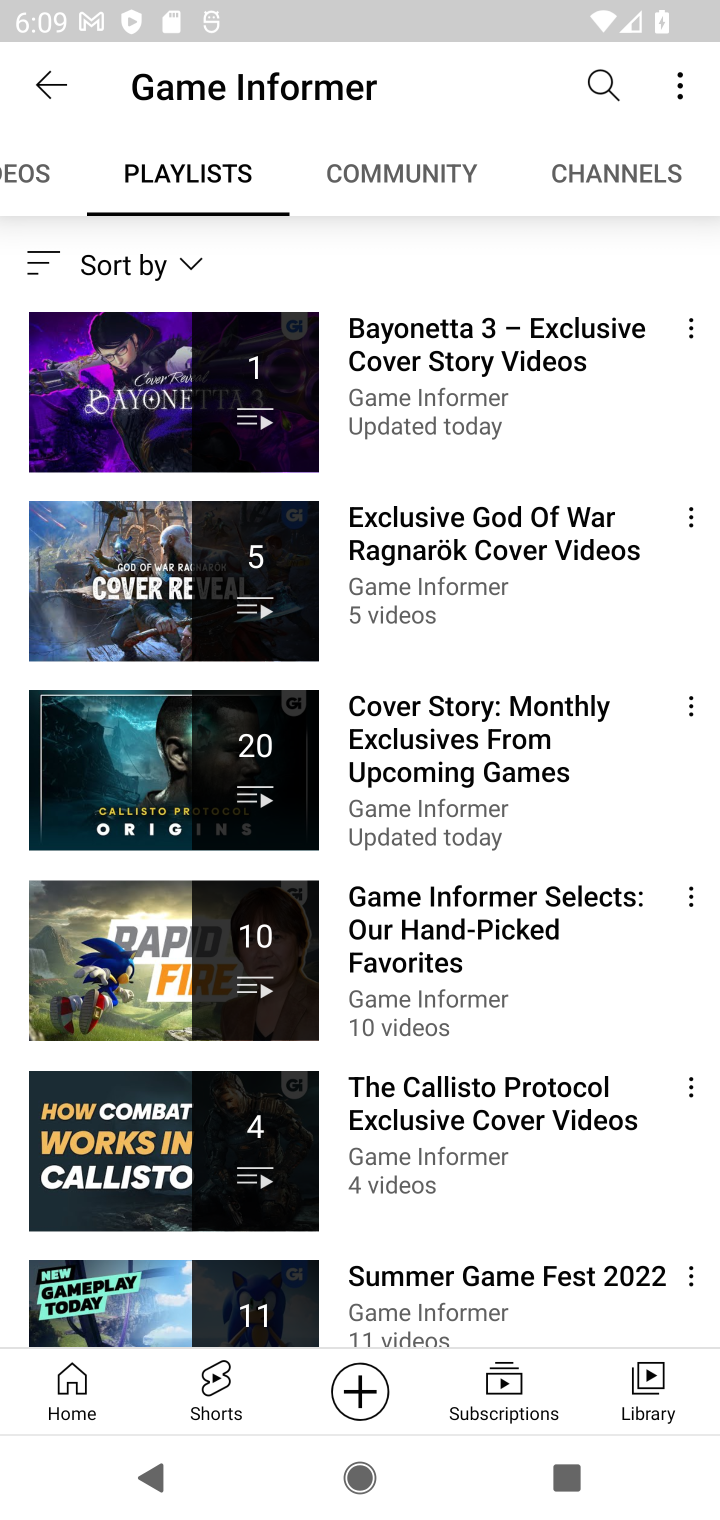
Step 27: click (412, 167)
Your task to perform on an android device: What's the latest video from Game Informer? Image 28: 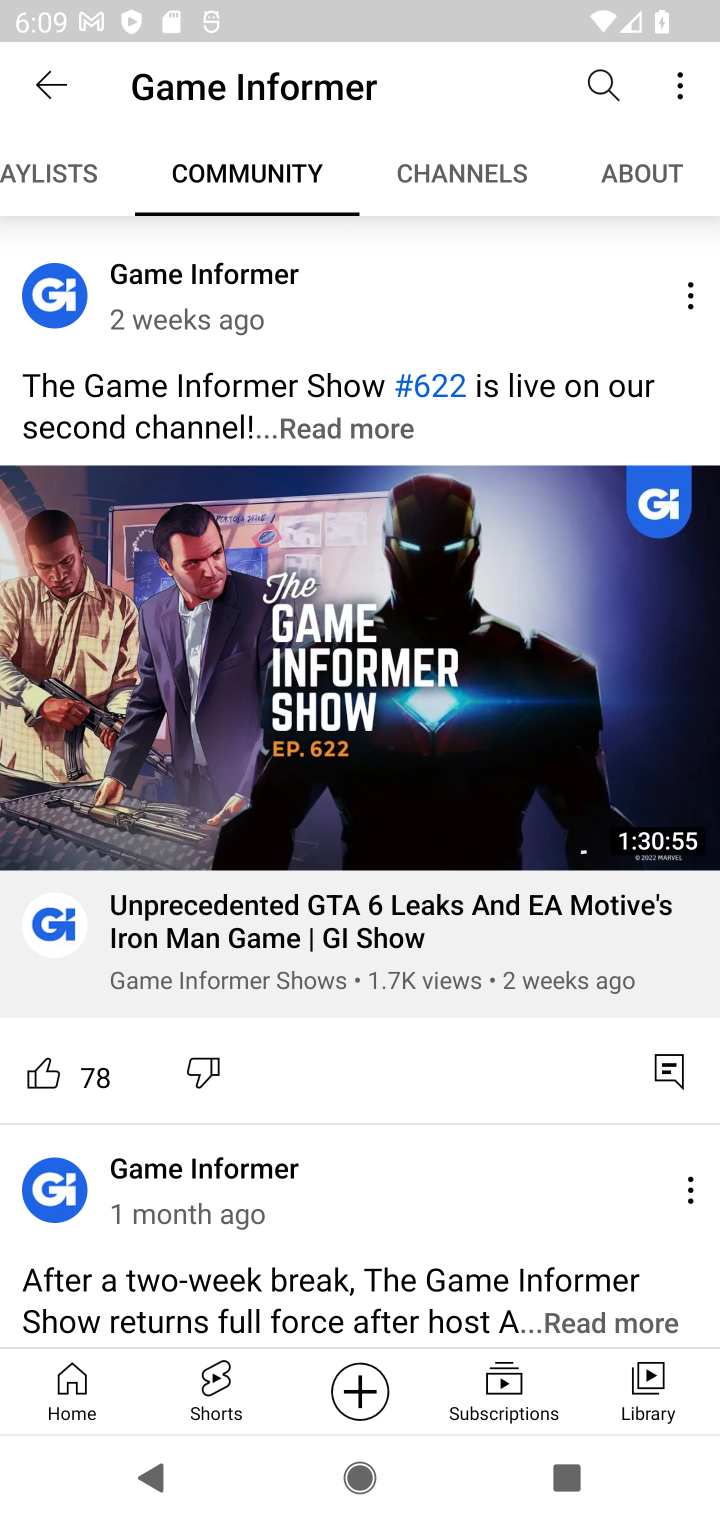
Step 28: click (647, 156)
Your task to perform on an android device: What's the latest video from Game Informer? Image 29: 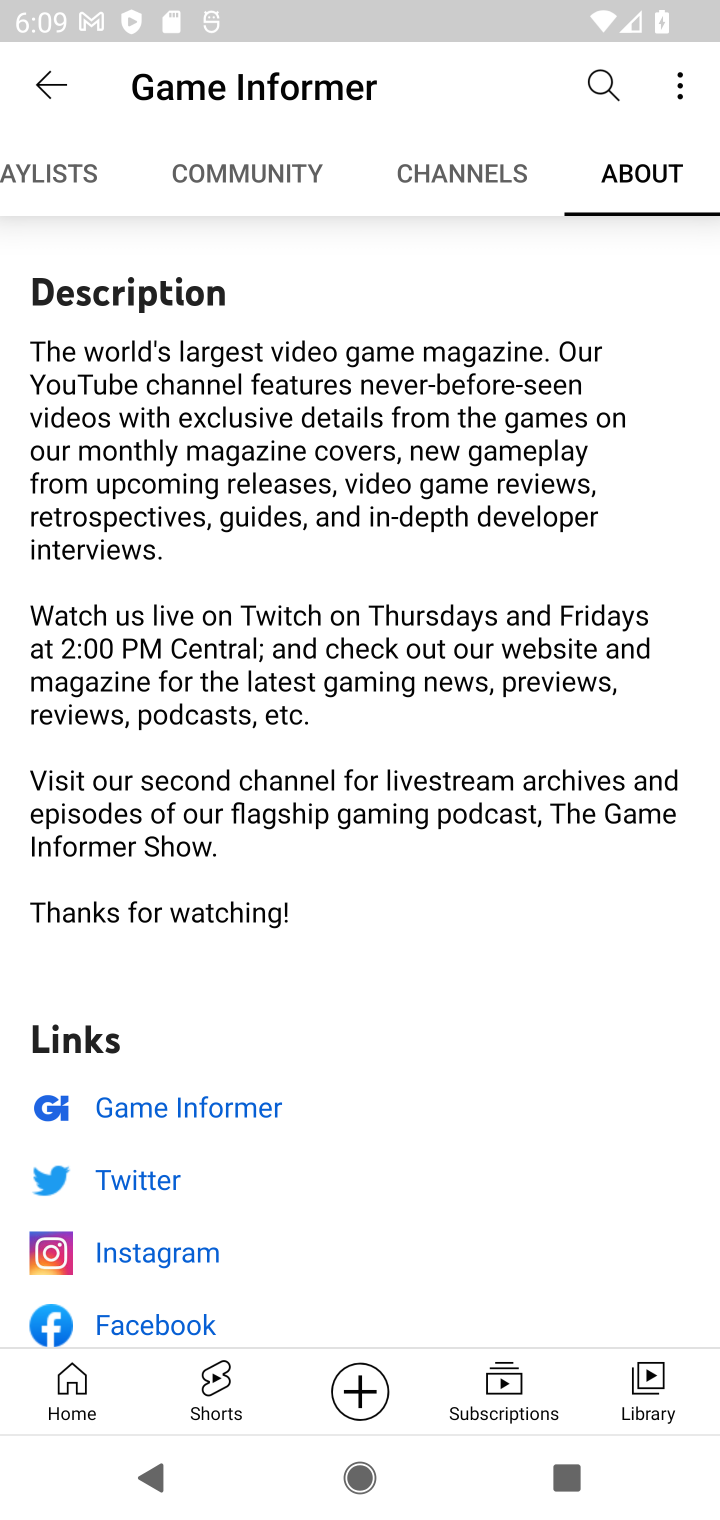
Step 29: task complete